Your task to perform on an android device: turn smart compose on in the gmail app Image 0: 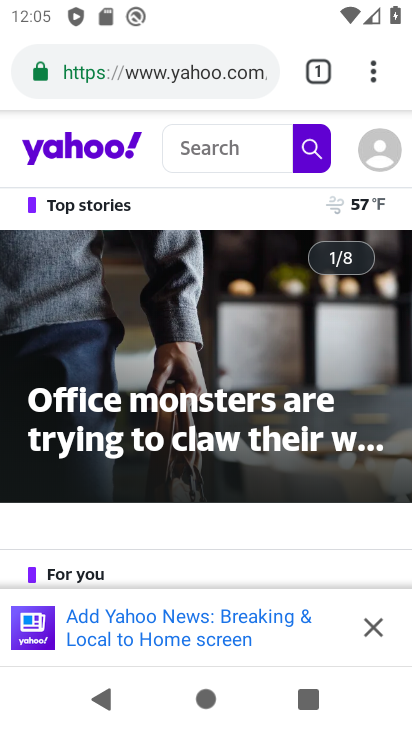
Step 0: press home button
Your task to perform on an android device: turn smart compose on in the gmail app Image 1: 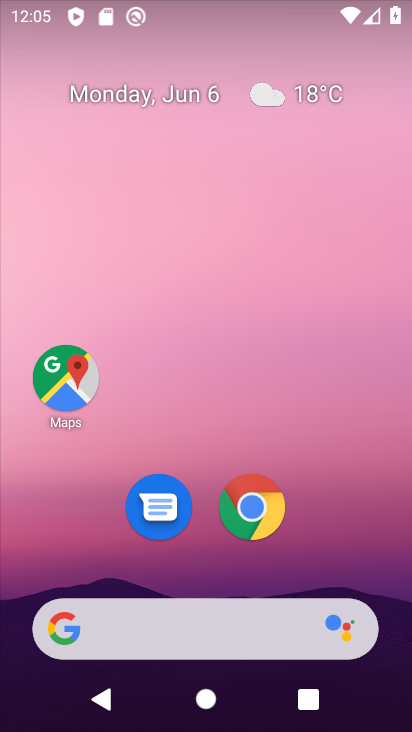
Step 1: drag from (199, 564) to (277, 29)
Your task to perform on an android device: turn smart compose on in the gmail app Image 2: 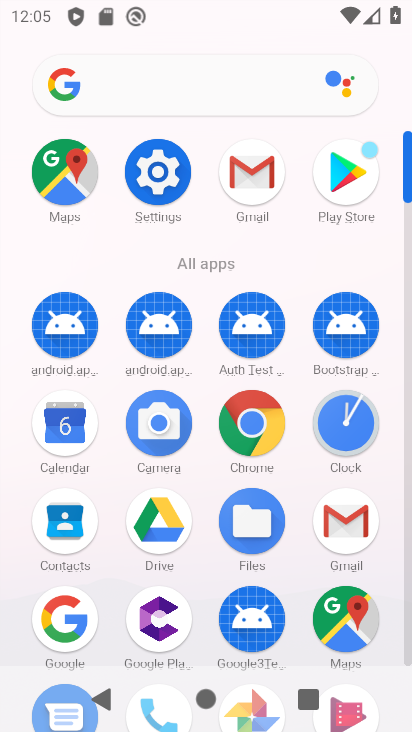
Step 2: click (351, 535)
Your task to perform on an android device: turn smart compose on in the gmail app Image 3: 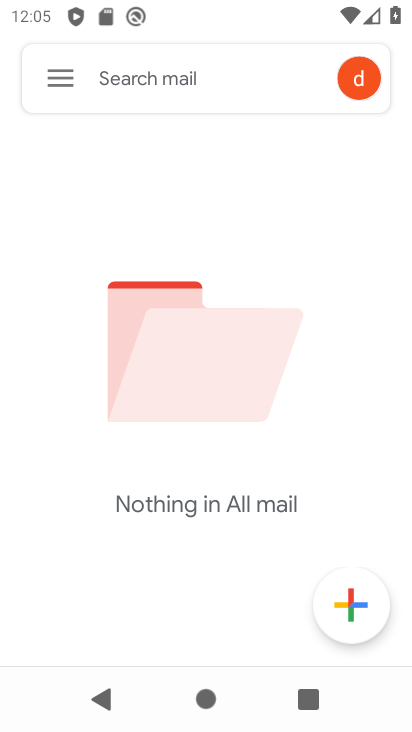
Step 3: click (56, 61)
Your task to perform on an android device: turn smart compose on in the gmail app Image 4: 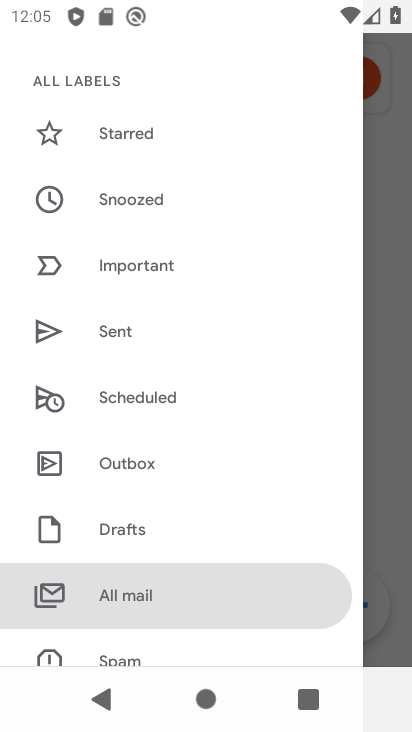
Step 4: drag from (152, 548) to (259, 160)
Your task to perform on an android device: turn smart compose on in the gmail app Image 5: 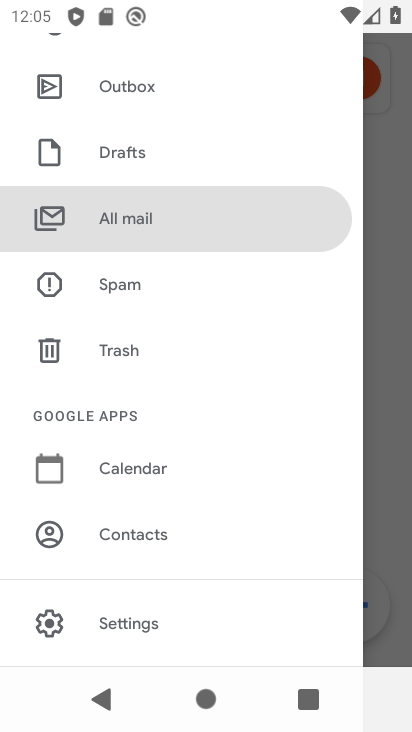
Step 5: click (161, 628)
Your task to perform on an android device: turn smart compose on in the gmail app Image 6: 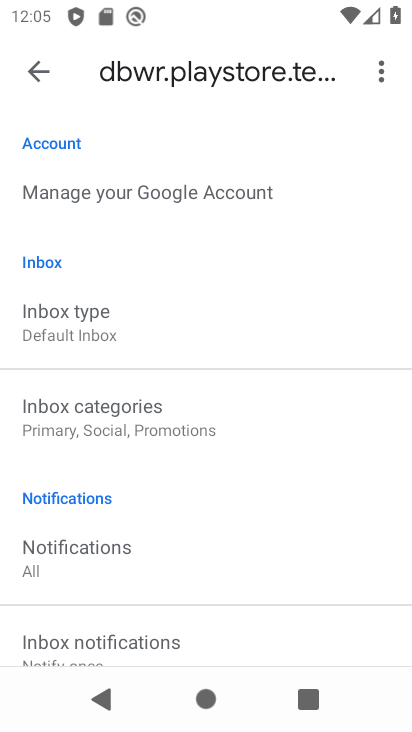
Step 6: task complete